Your task to perform on an android device: Open internet settings Image 0: 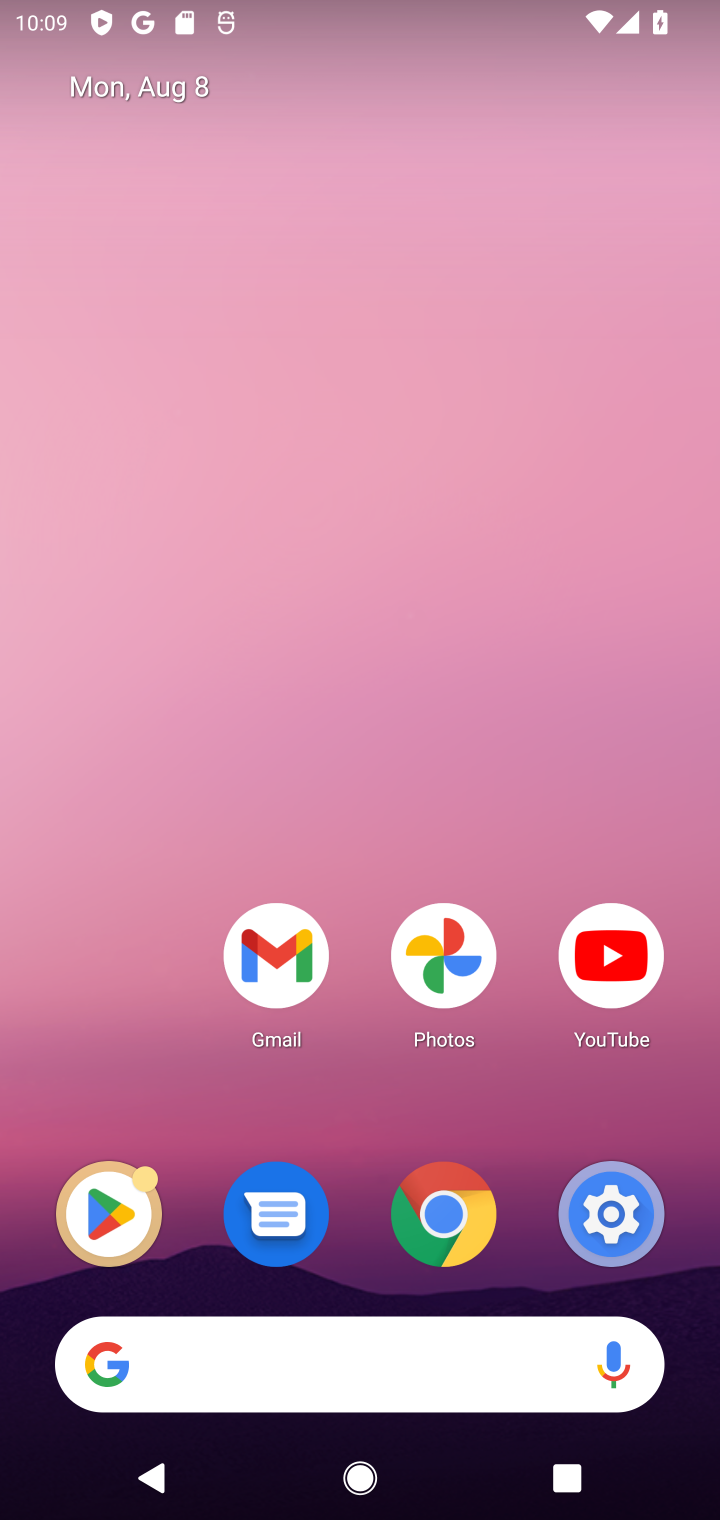
Step 0: click (266, 1118)
Your task to perform on an android device: Open internet settings Image 1: 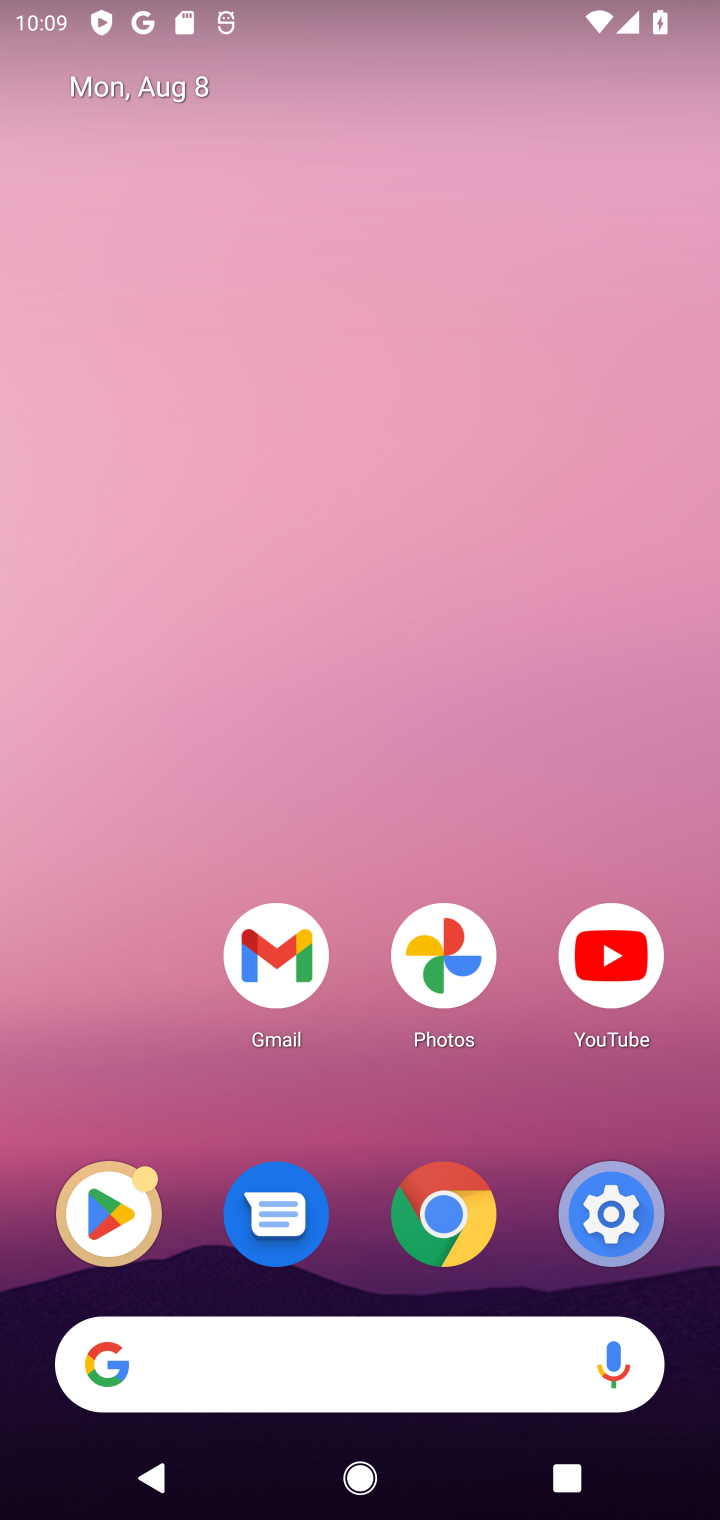
Step 1: drag from (92, 1449) to (386, 647)
Your task to perform on an android device: Open internet settings Image 2: 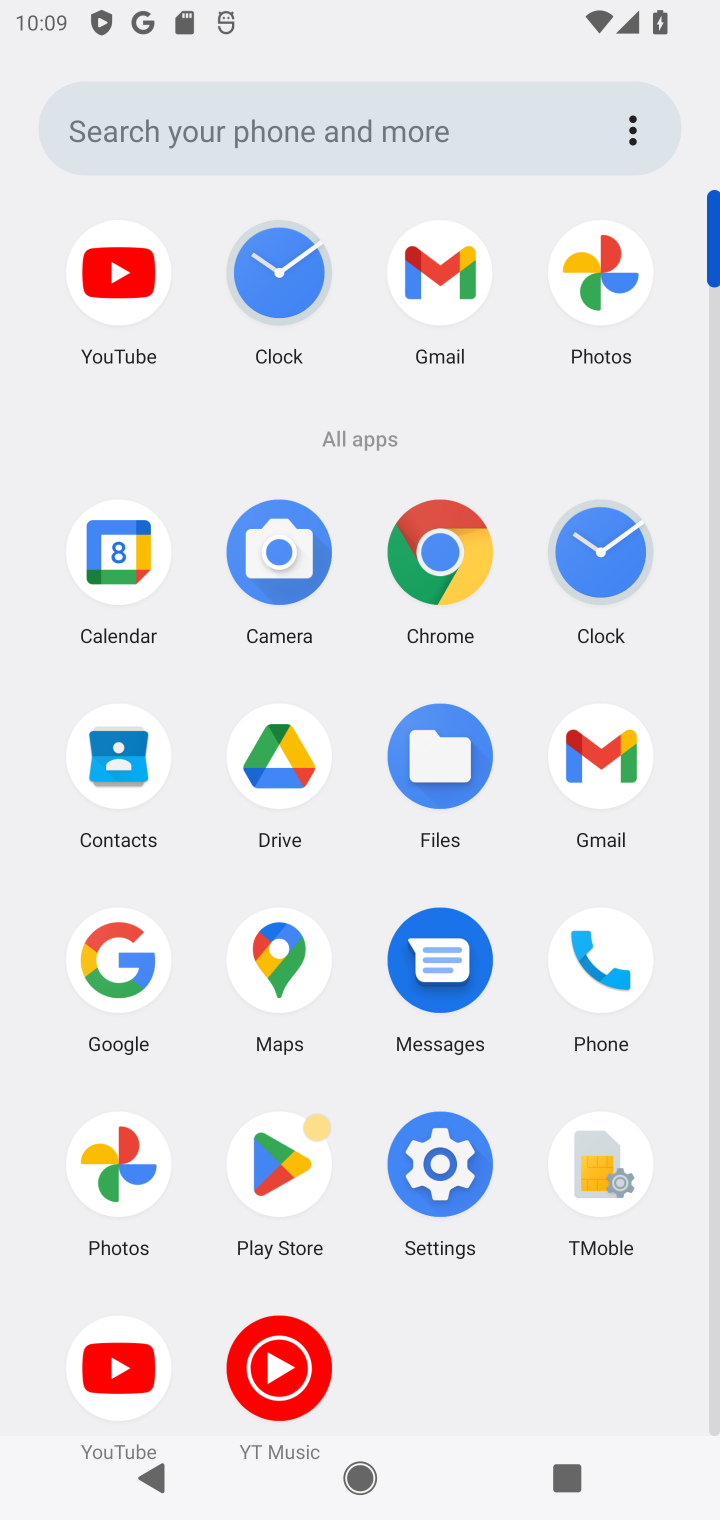
Step 2: click (482, 1168)
Your task to perform on an android device: Open internet settings Image 3: 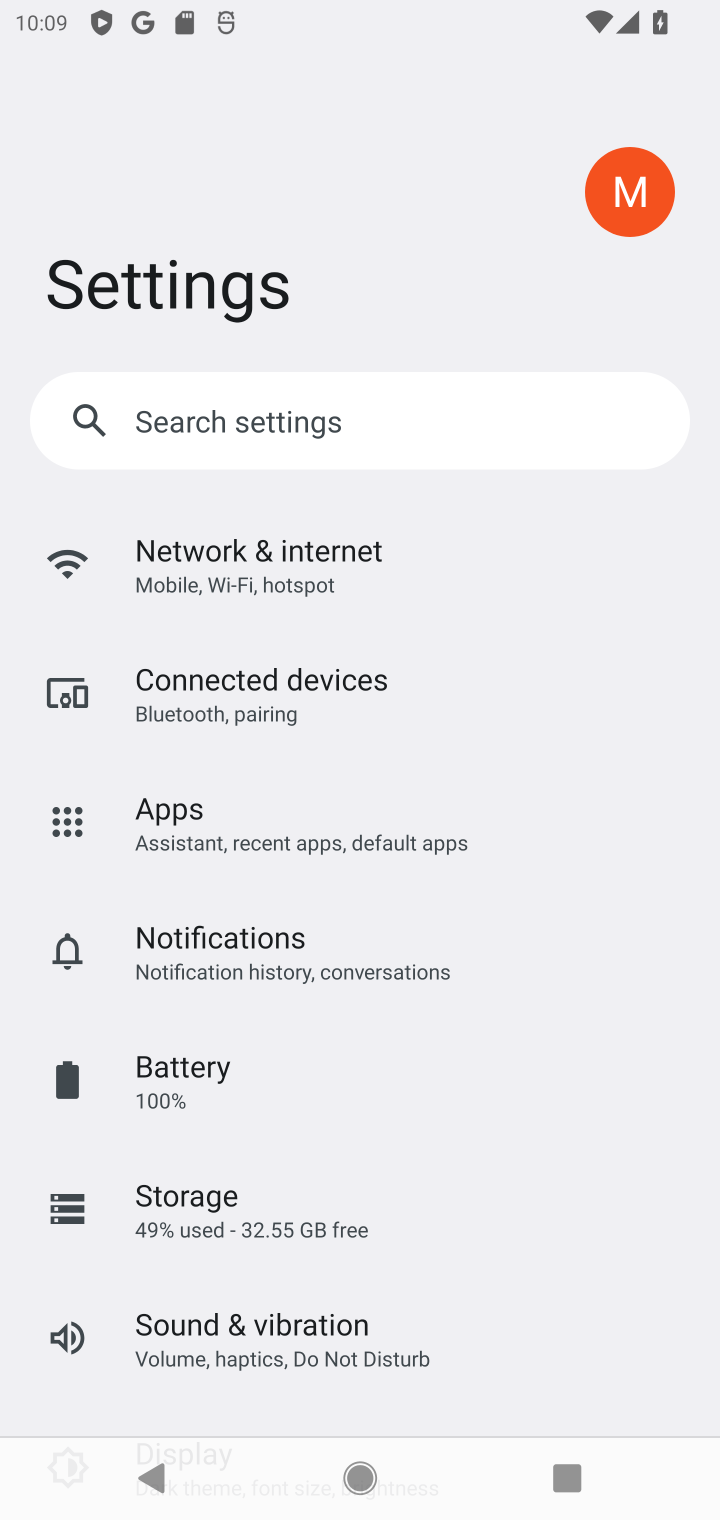
Step 3: click (351, 540)
Your task to perform on an android device: Open internet settings Image 4: 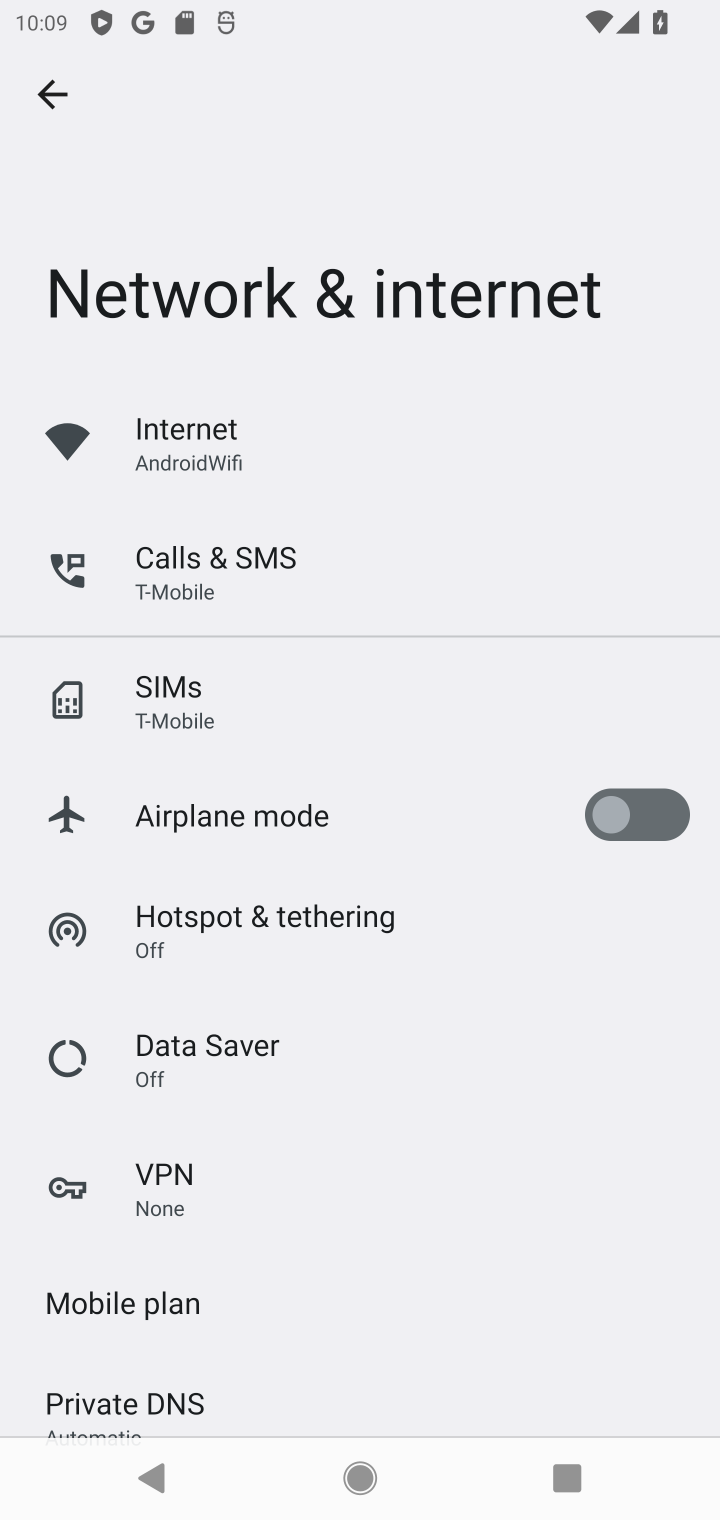
Step 4: task complete